Your task to perform on an android device: Go to network settings Image 0: 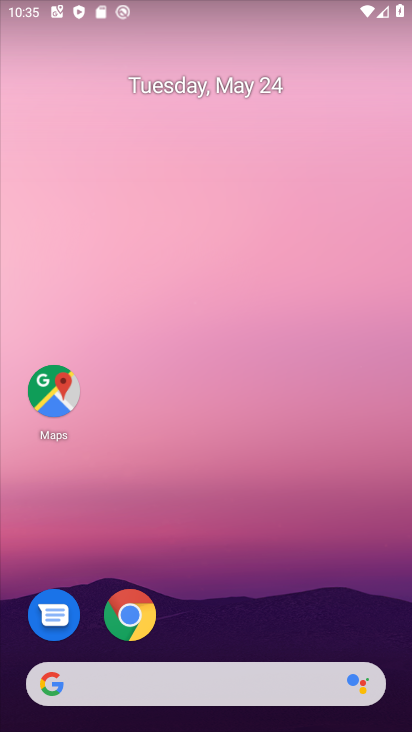
Step 0: drag from (194, 424) to (200, 70)
Your task to perform on an android device: Go to network settings Image 1: 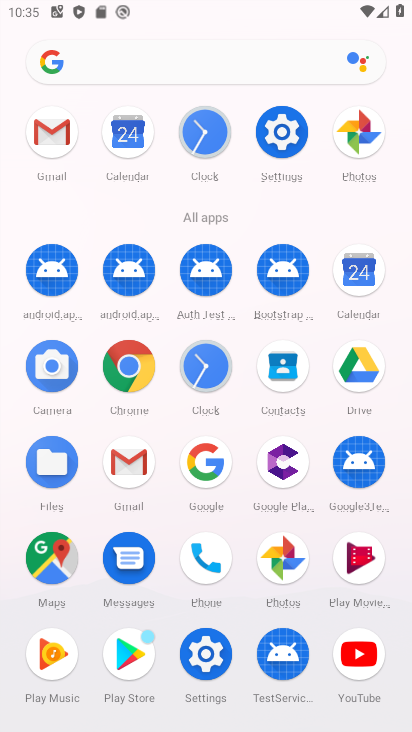
Step 1: click (275, 137)
Your task to perform on an android device: Go to network settings Image 2: 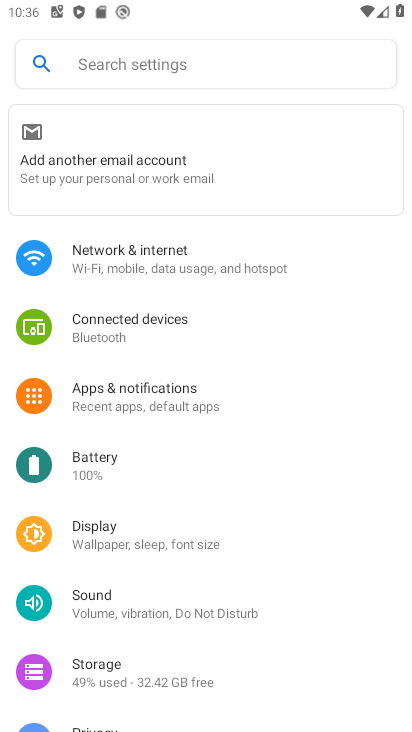
Step 2: click (182, 276)
Your task to perform on an android device: Go to network settings Image 3: 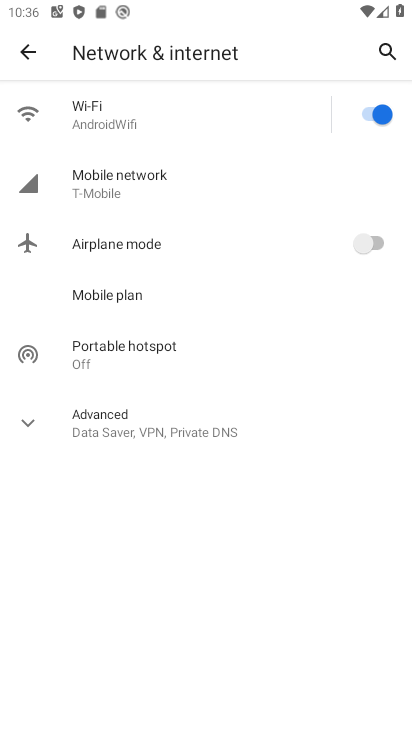
Step 3: task complete